Your task to perform on an android device: search for starred emails in the gmail app Image 0: 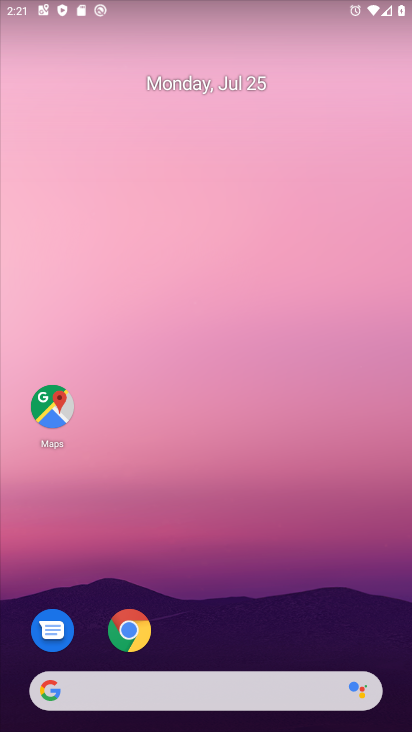
Step 0: drag from (287, 613) to (269, 68)
Your task to perform on an android device: search for starred emails in the gmail app Image 1: 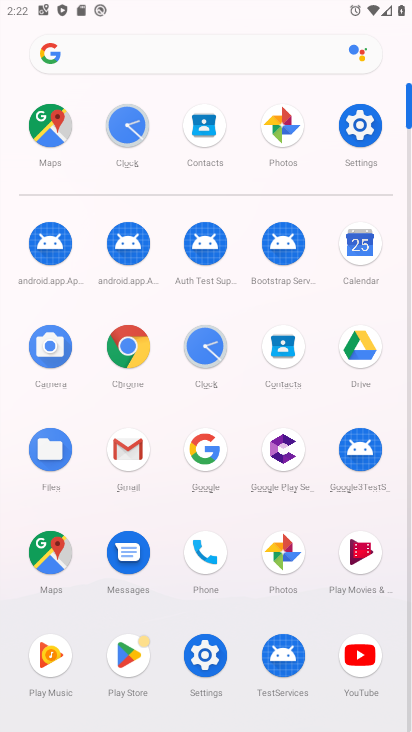
Step 1: click (114, 447)
Your task to perform on an android device: search for starred emails in the gmail app Image 2: 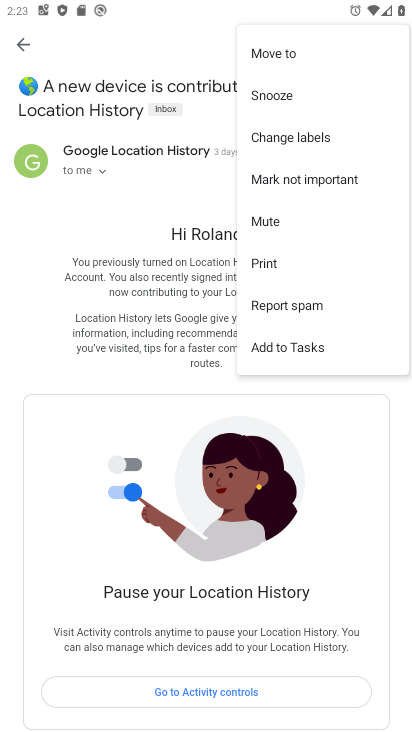
Step 2: click (82, 409)
Your task to perform on an android device: search for starred emails in the gmail app Image 3: 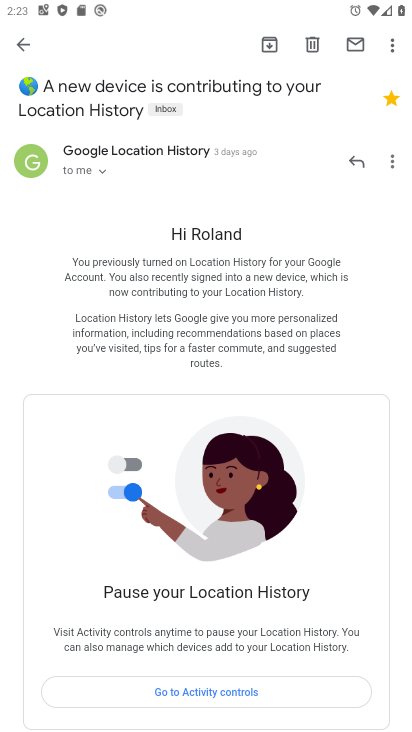
Step 3: click (50, 318)
Your task to perform on an android device: search for starred emails in the gmail app Image 4: 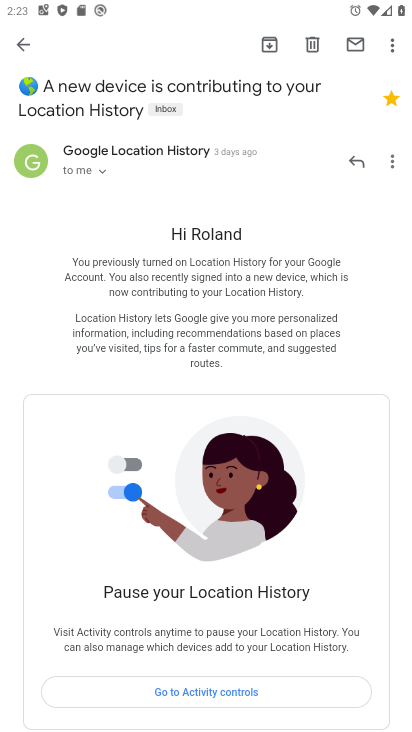
Step 4: task complete